Your task to perform on an android device: Open notification settings Image 0: 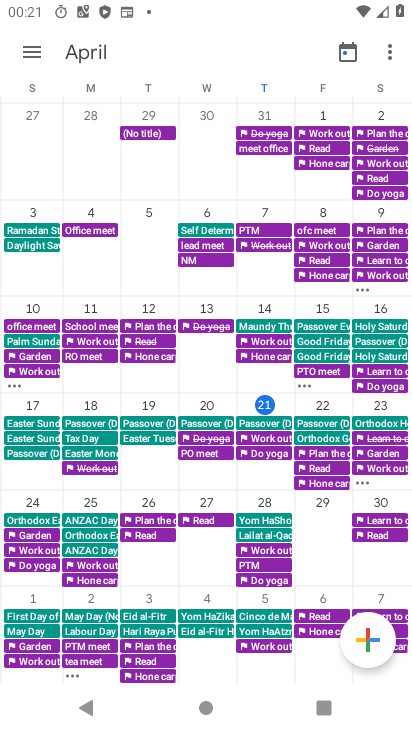
Step 0: press home button
Your task to perform on an android device: Open notification settings Image 1: 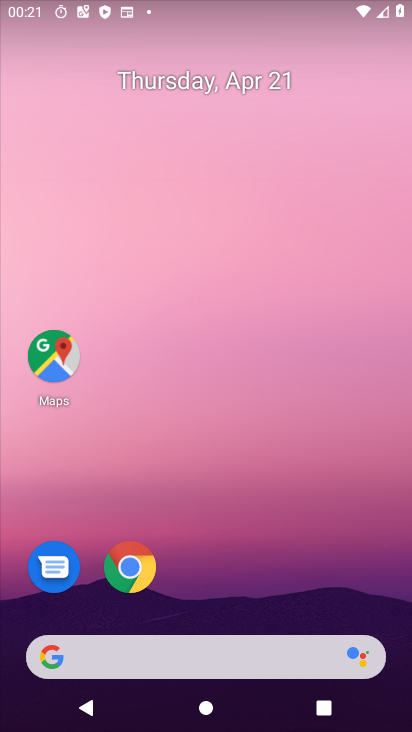
Step 1: drag from (223, 577) to (241, 274)
Your task to perform on an android device: Open notification settings Image 2: 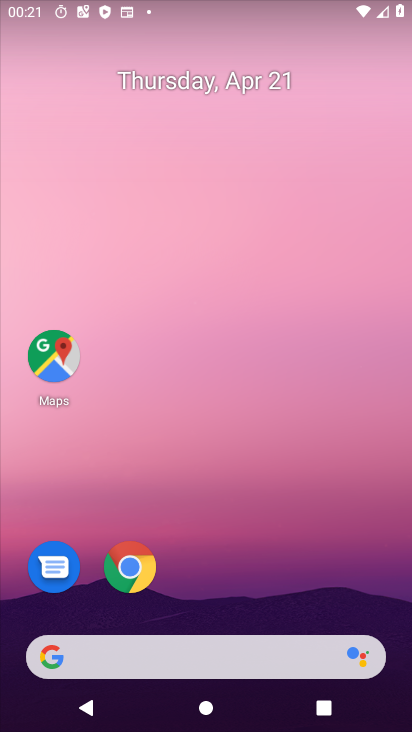
Step 2: drag from (260, 408) to (272, 265)
Your task to perform on an android device: Open notification settings Image 3: 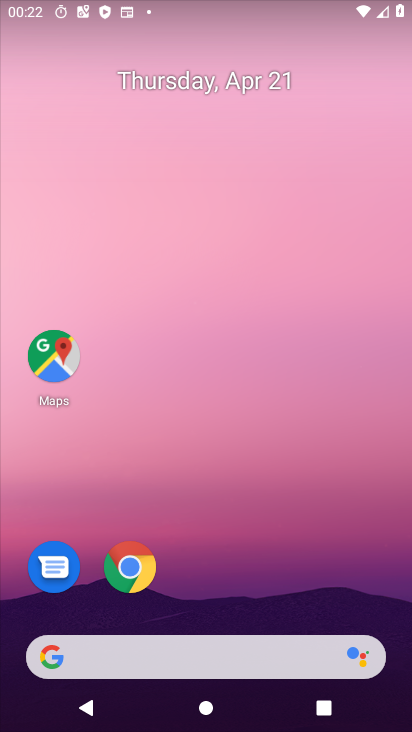
Step 3: drag from (221, 583) to (263, 154)
Your task to perform on an android device: Open notification settings Image 4: 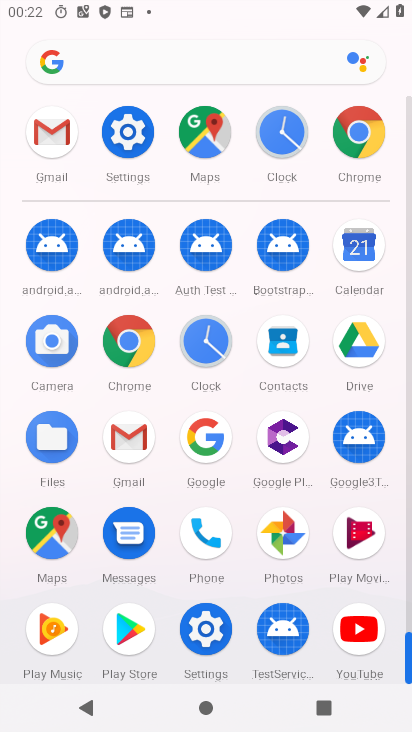
Step 4: click (132, 125)
Your task to perform on an android device: Open notification settings Image 5: 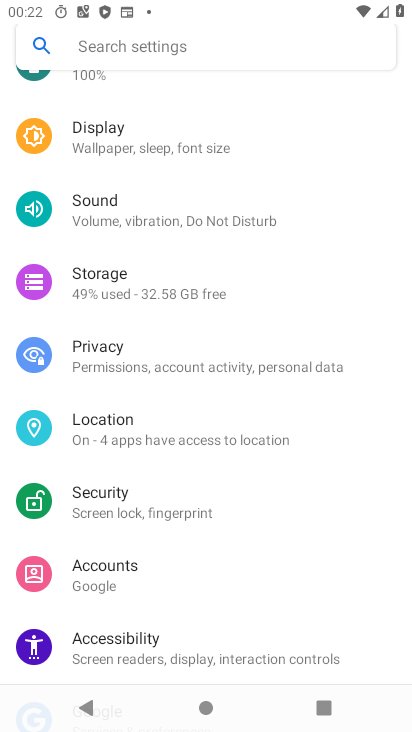
Step 5: click (135, 120)
Your task to perform on an android device: Open notification settings Image 6: 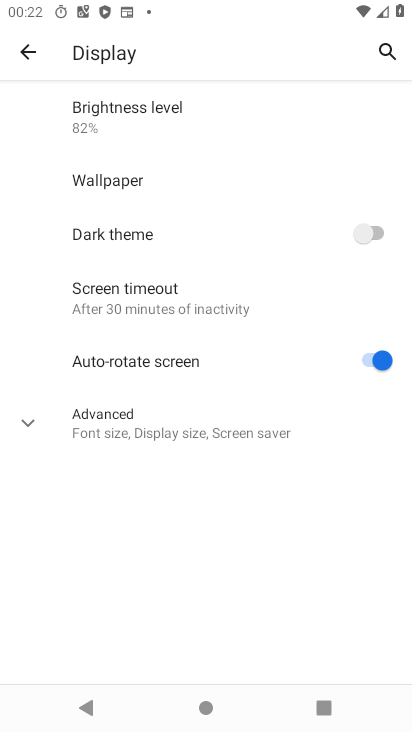
Step 6: click (27, 48)
Your task to perform on an android device: Open notification settings Image 7: 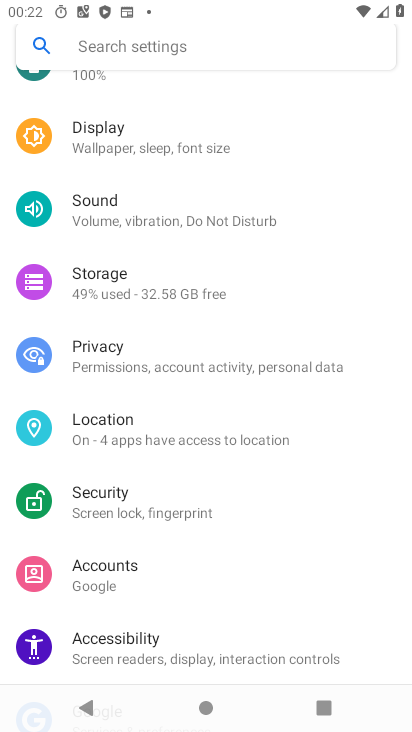
Step 7: drag from (218, 128) to (220, 666)
Your task to perform on an android device: Open notification settings Image 8: 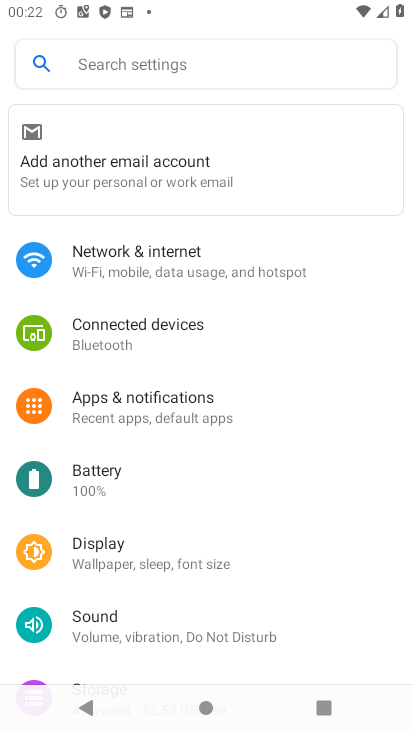
Step 8: click (169, 397)
Your task to perform on an android device: Open notification settings Image 9: 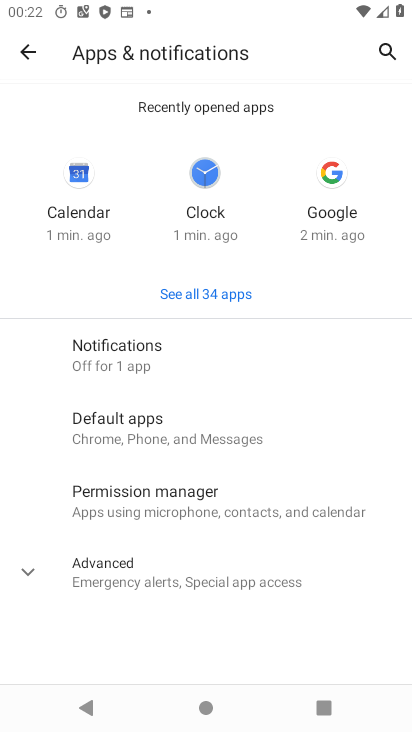
Step 9: click (167, 351)
Your task to perform on an android device: Open notification settings Image 10: 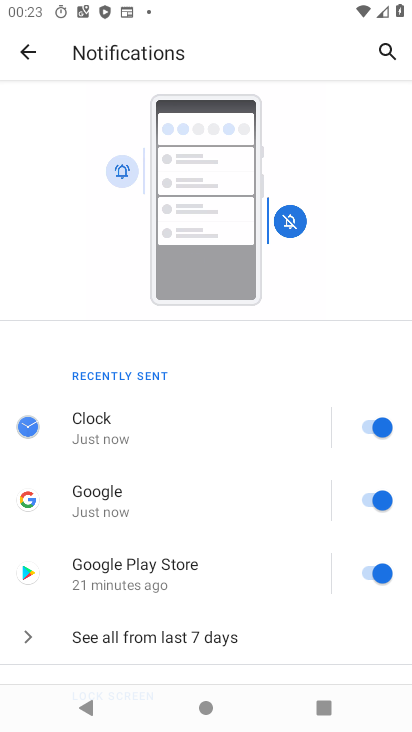
Step 10: task complete